Your task to perform on an android device: Go to sound settings Image 0: 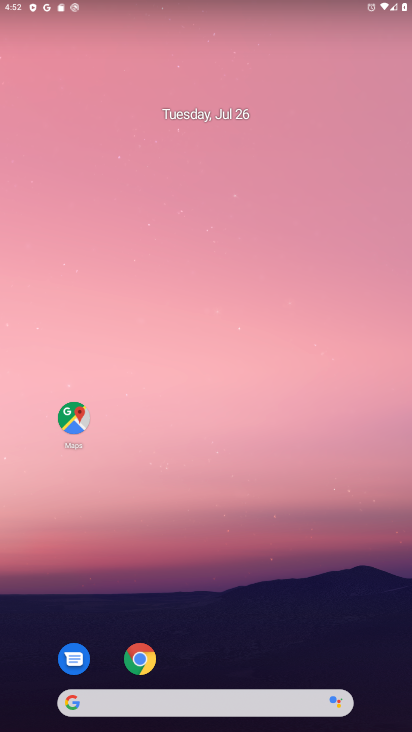
Step 0: press home button
Your task to perform on an android device: Go to sound settings Image 1: 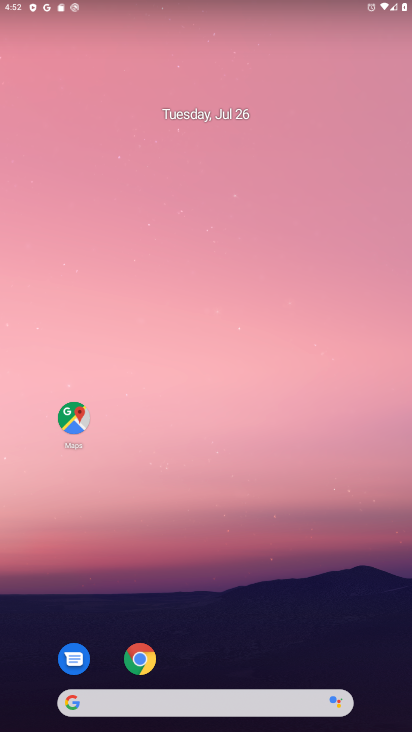
Step 1: drag from (208, 661) to (232, 35)
Your task to perform on an android device: Go to sound settings Image 2: 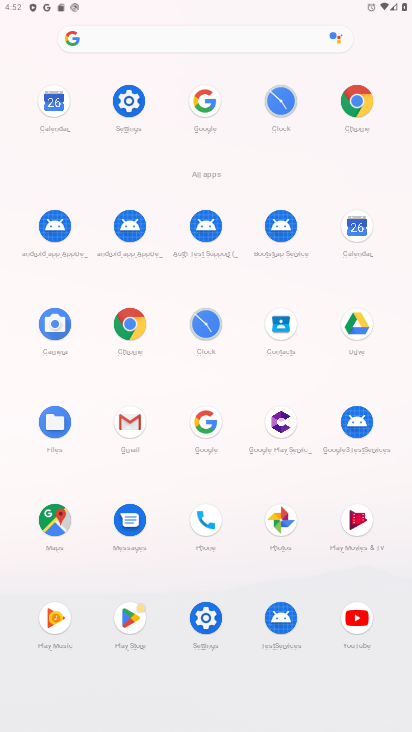
Step 2: click (204, 614)
Your task to perform on an android device: Go to sound settings Image 3: 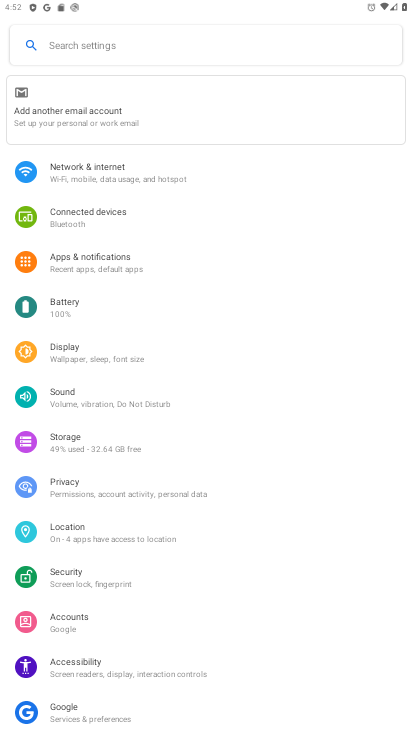
Step 3: click (76, 400)
Your task to perform on an android device: Go to sound settings Image 4: 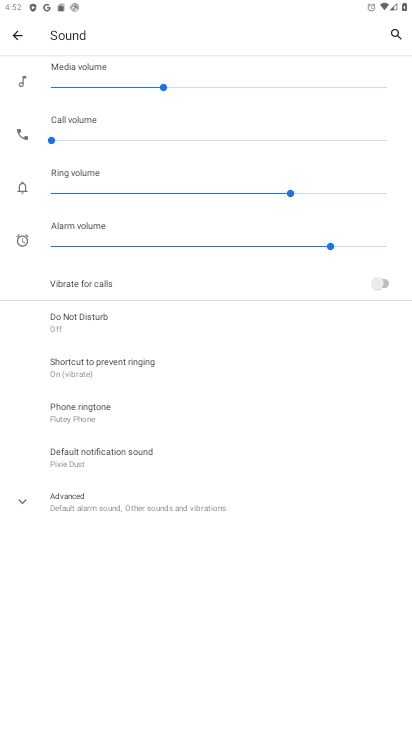
Step 4: click (28, 496)
Your task to perform on an android device: Go to sound settings Image 5: 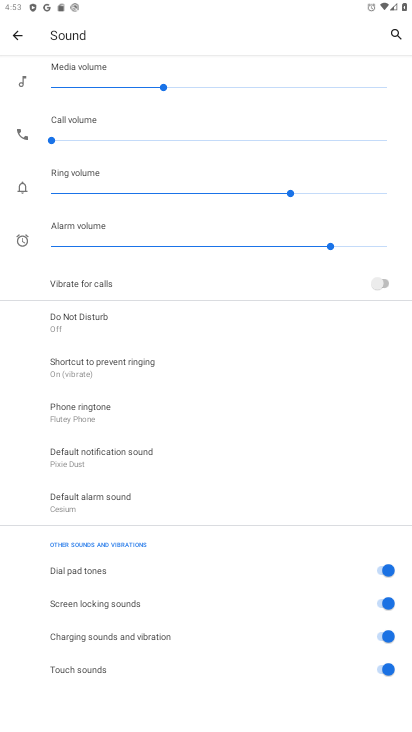
Step 5: task complete